Your task to perform on an android device: check android version Image 0: 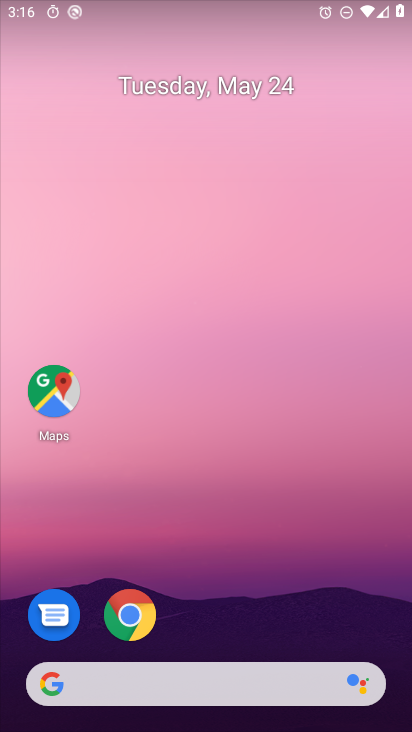
Step 0: drag from (190, 507) to (233, 218)
Your task to perform on an android device: check android version Image 1: 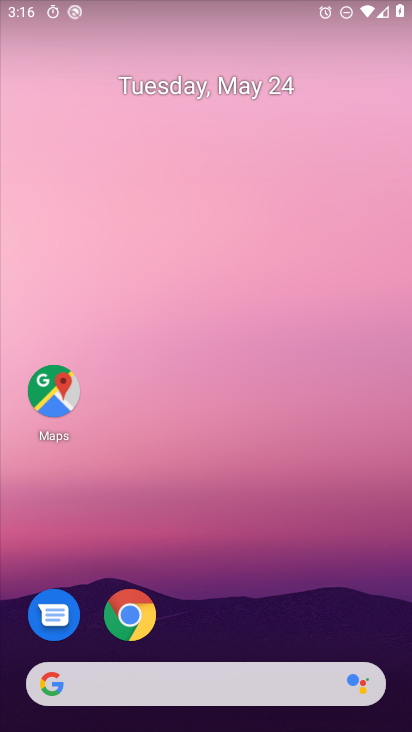
Step 1: drag from (299, 653) to (311, 226)
Your task to perform on an android device: check android version Image 2: 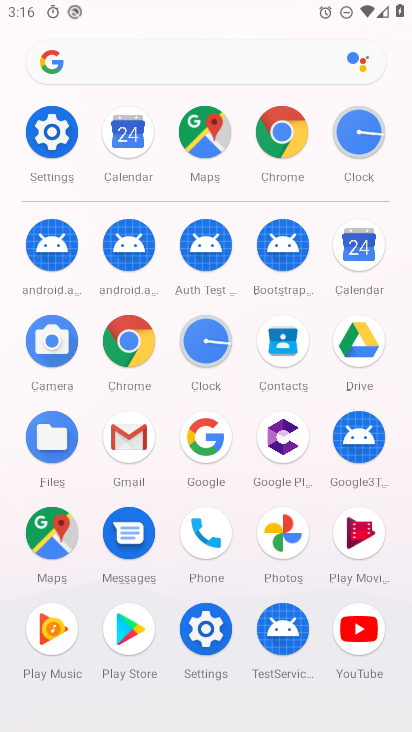
Step 2: click (204, 634)
Your task to perform on an android device: check android version Image 3: 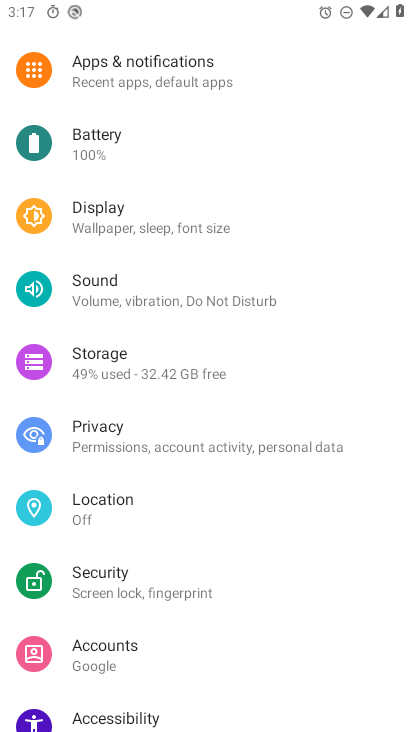
Step 3: drag from (174, 720) to (232, 315)
Your task to perform on an android device: check android version Image 4: 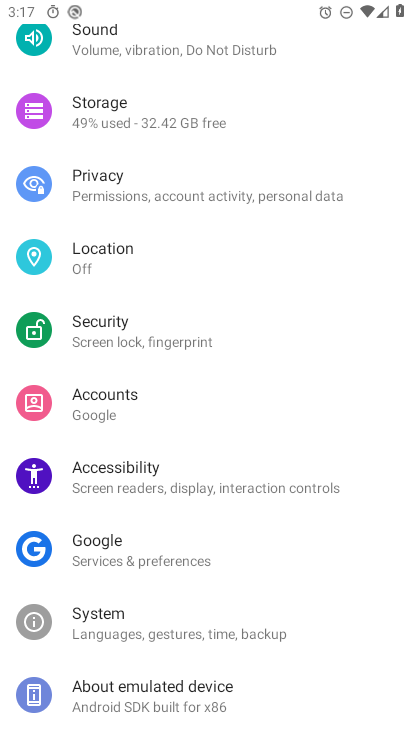
Step 4: click (138, 695)
Your task to perform on an android device: check android version Image 5: 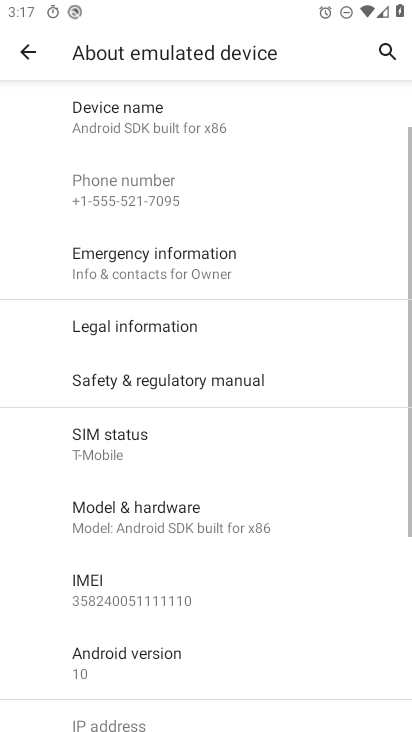
Step 5: click (101, 683)
Your task to perform on an android device: check android version Image 6: 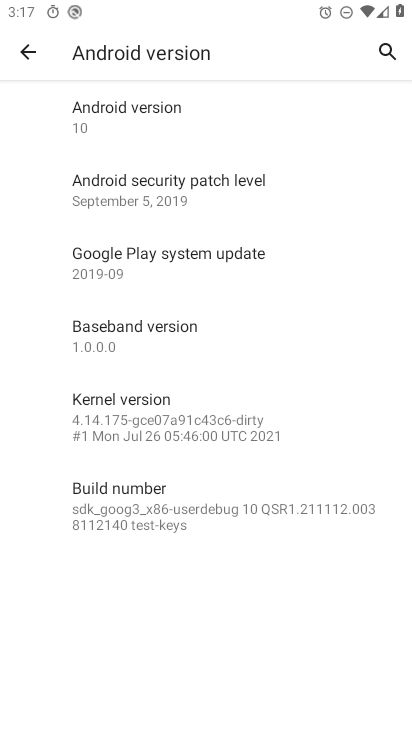
Step 6: task complete